Your task to perform on an android device: What's the weather going to be tomorrow? Image 0: 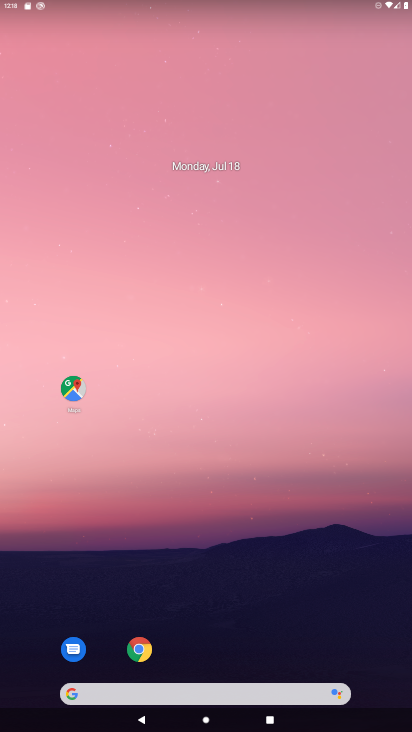
Step 0: click (187, 697)
Your task to perform on an android device: What's the weather going to be tomorrow? Image 1: 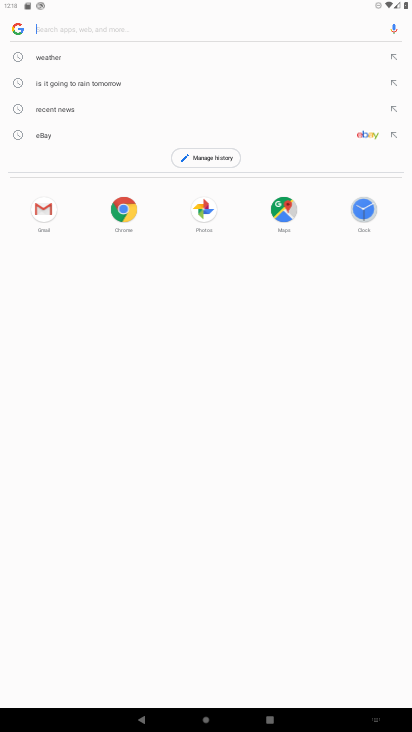
Step 1: click (66, 55)
Your task to perform on an android device: What's the weather going to be tomorrow? Image 2: 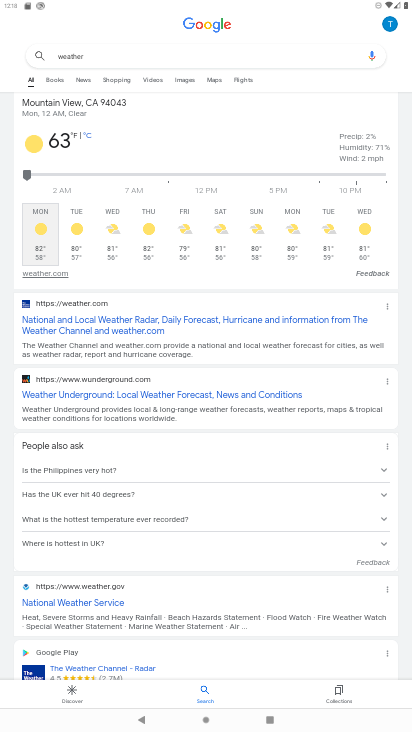
Step 2: click (78, 258)
Your task to perform on an android device: What's the weather going to be tomorrow? Image 3: 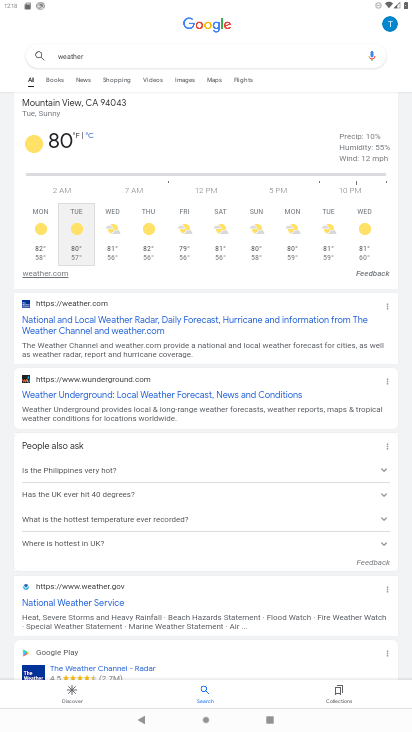
Step 3: task complete